Your task to perform on an android device: toggle sleep mode Image 0: 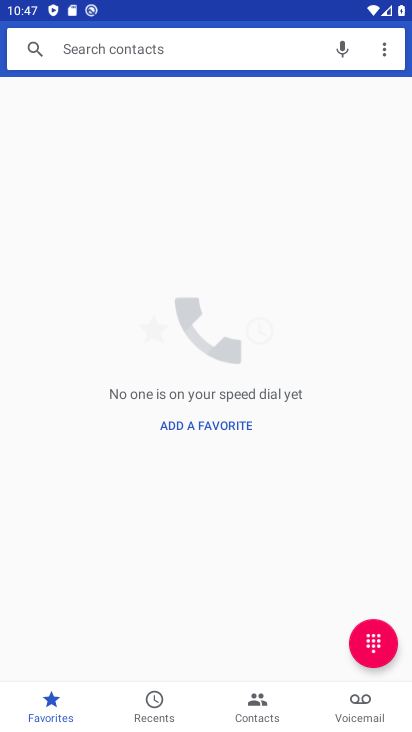
Step 0: drag from (236, 657) to (261, 343)
Your task to perform on an android device: toggle sleep mode Image 1: 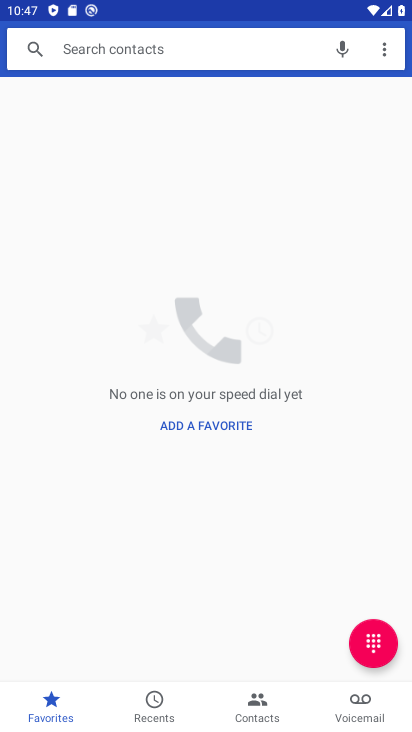
Step 1: press home button
Your task to perform on an android device: toggle sleep mode Image 2: 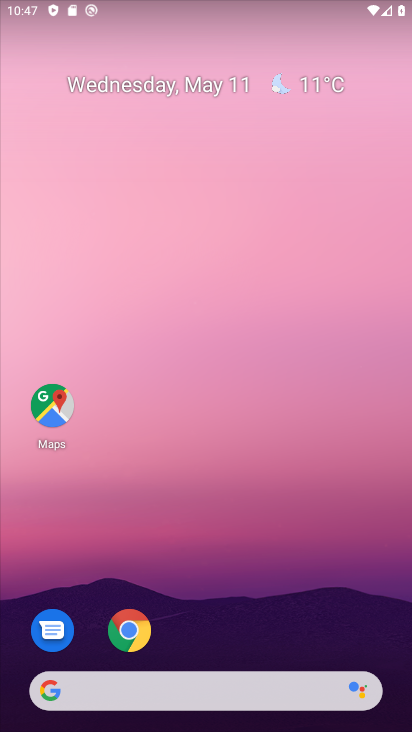
Step 2: drag from (216, 598) to (224, 234)
Your task to perform on an android device: toggle sleep mode Image 3: 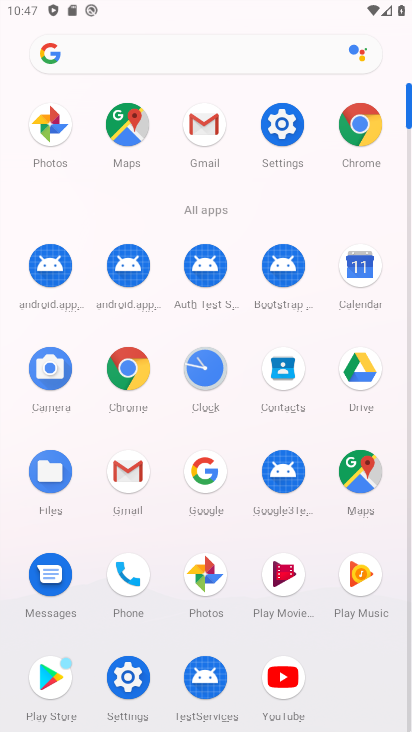
Step 3: click (277, 130)
Your task to perform on an android device: toggle sleep mode Image 4: 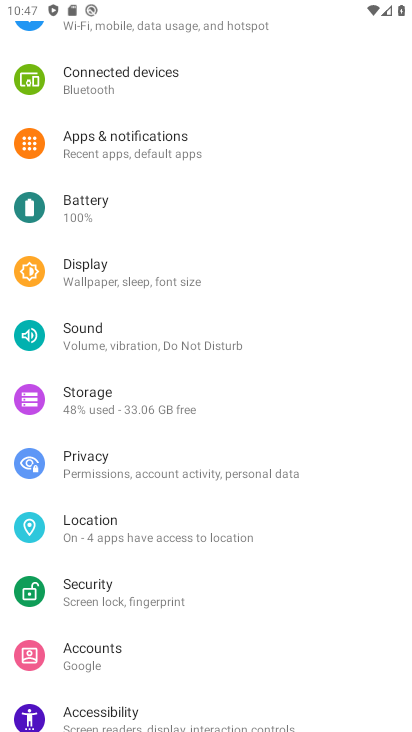
Step 4: click (134, 280)
Your task to perform on an android device: toggle sleep mode Image 5: 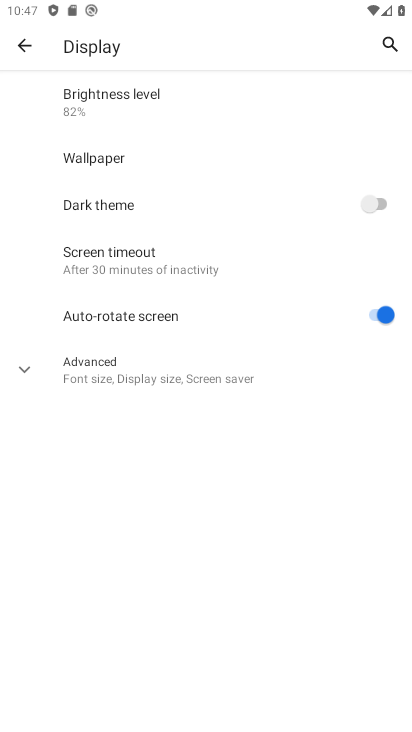
Step 5: task complete